Your task to perform on an android device: Go to notification settings Image 0: 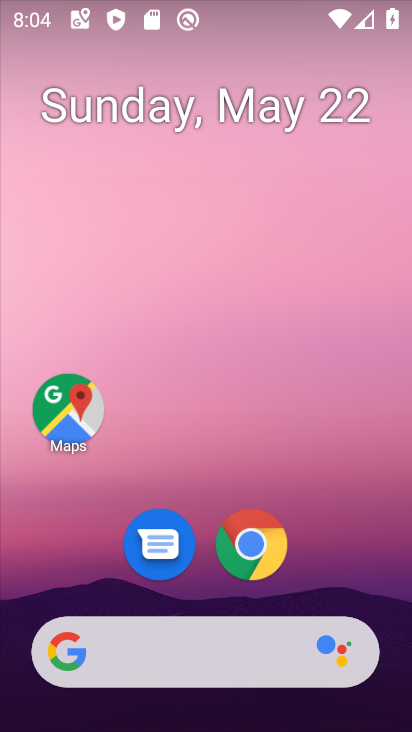
Step 0: drag from (321, 516) to (251, 223)
Your task to perform on an android device: Go to notification settings Image 1: 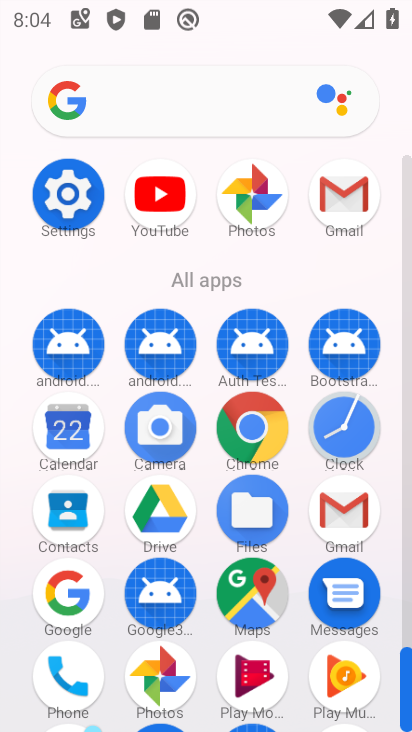
Step 1: click (79, 196)
Your task to perform on an android device: Go to notification settings Image 2: 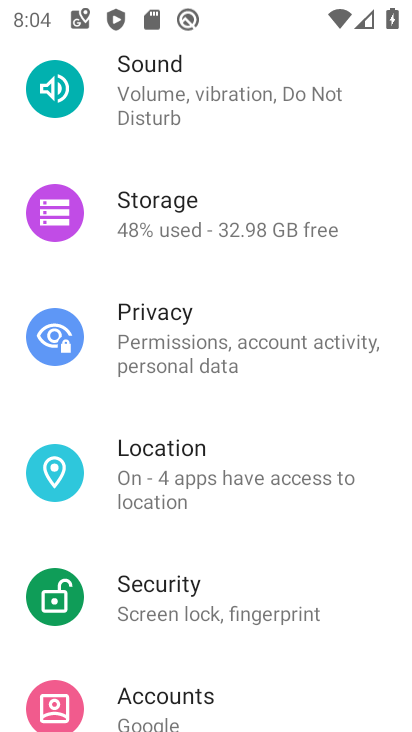
Step 2: drag from (164, 140) to (257, 595)
Your task to perform on an android device: Go to notification settings Image 3: 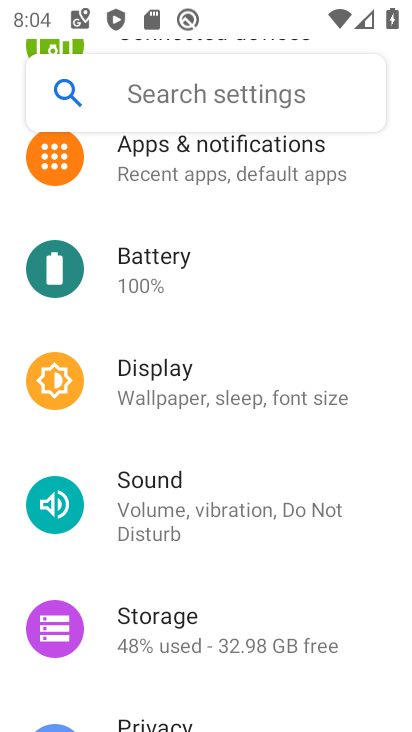
Step 3: drag from (215, 260) to (217, 493)
Your task to perform on an android device: Go to notification settings Image 4: 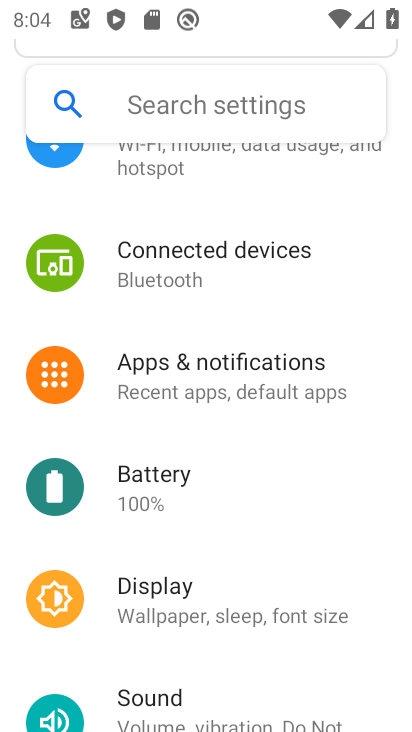
Step 4: click (213, 395)
Your task to perform on an android device: Go to notification settings Image 5: 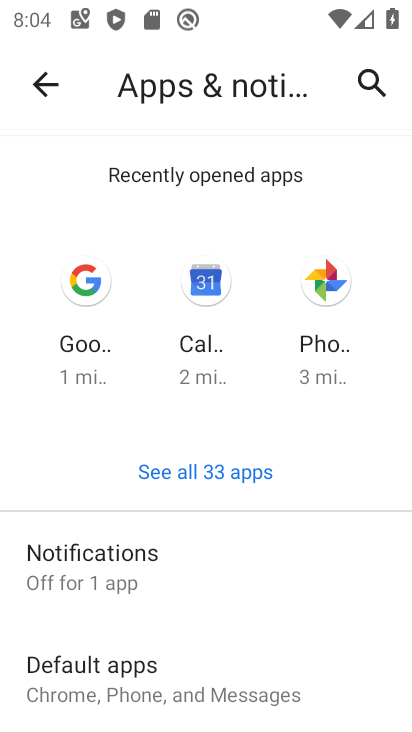
Step 5: click (126, 553)
Your task to perform on an android device: Go to notification settings Image 6: 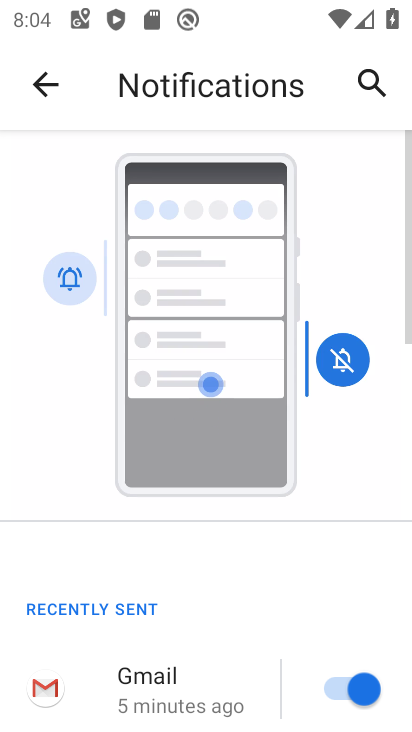
Step 6: task complete